Your task to perform on an android device: Turn off the flashlight Image 0: 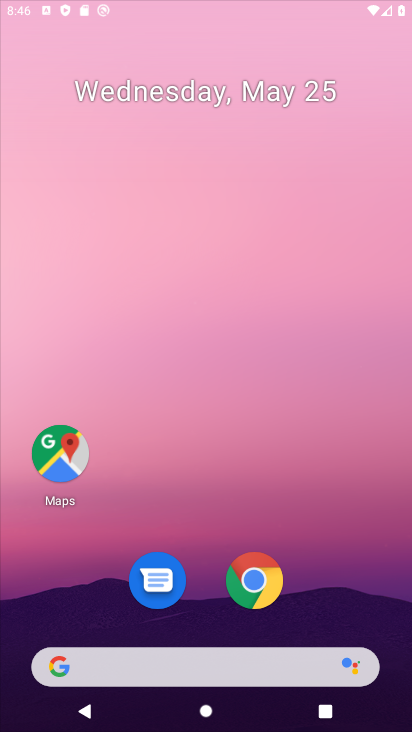
Step 0: task complete